Your task to perform on an android device: empty trash in the gmail app Image 0: 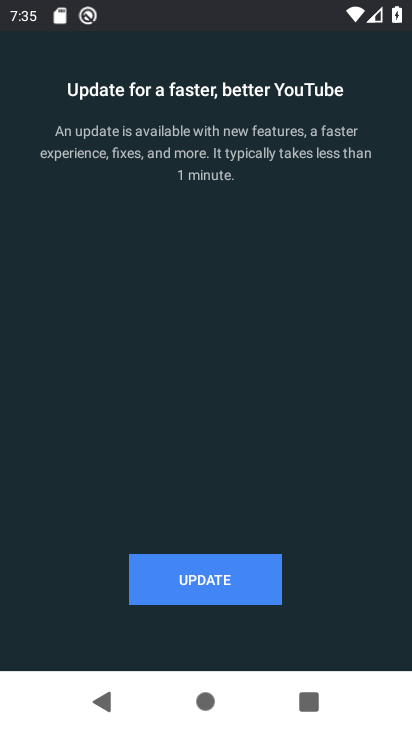
Step 0: press home button
Your task to perform on an android device: empty trash in the gmail app Image 1: 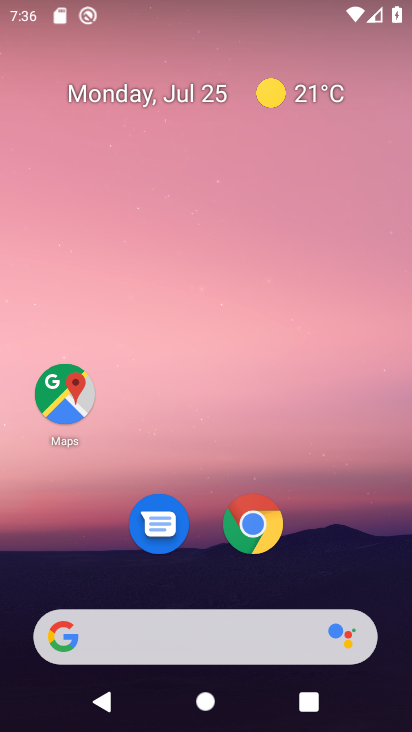
Step 1: drag from (277, 601) to (313, 145)
Your task to perform on an android device: empty trash in the gmail app Image 2: 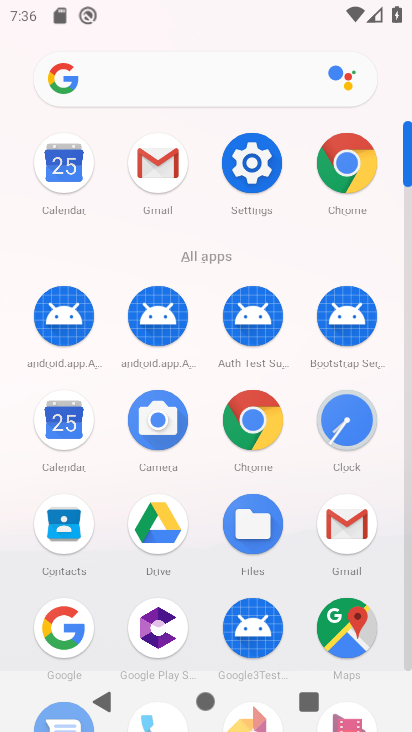
Step 2: click (158, 163)
Your task to perform on an android device: empty trash in the gmail app Image 3: 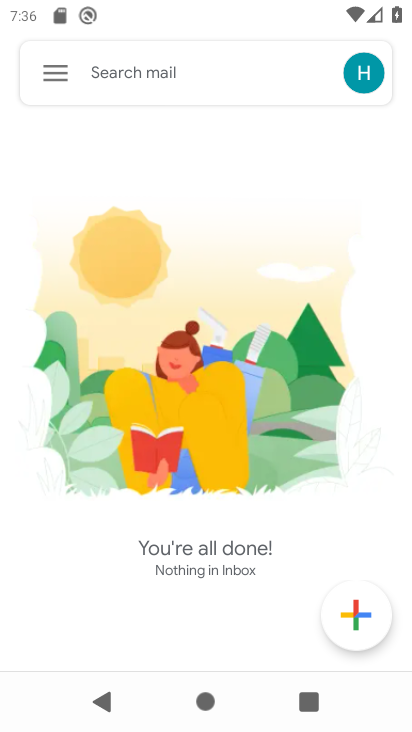
Step 3: click (54, 75)
Your task to perform on an android device: empty trash in the gmail app Image 4: 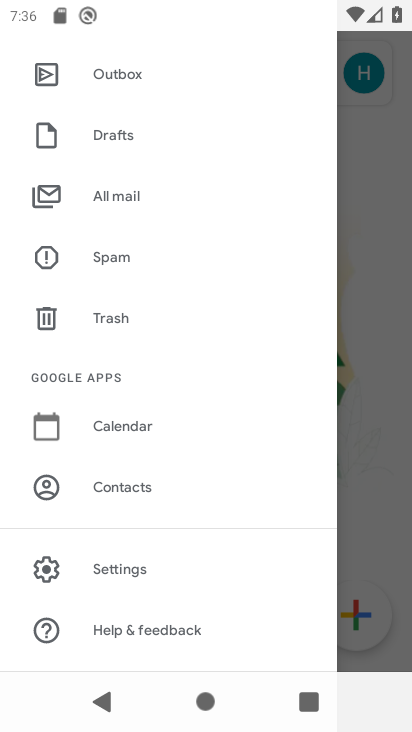
Step 4: click (111, 325)
Your task to perform on an android device: empty trash in the gmail app Image 5: 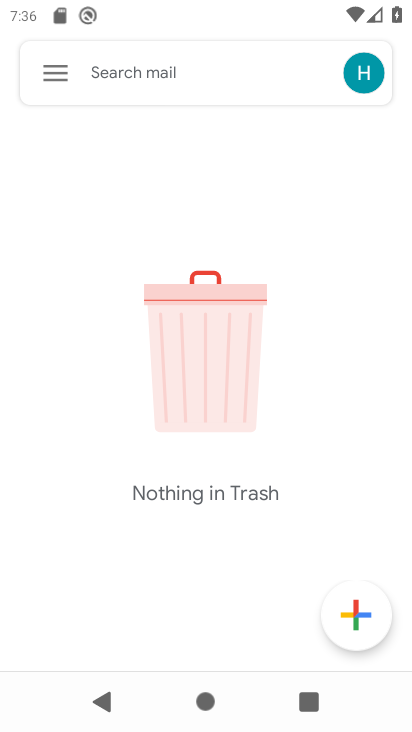
Step 5: task complete